Your task to perform on an android device: install app "Flipkart Online Shopping App" Image 0: 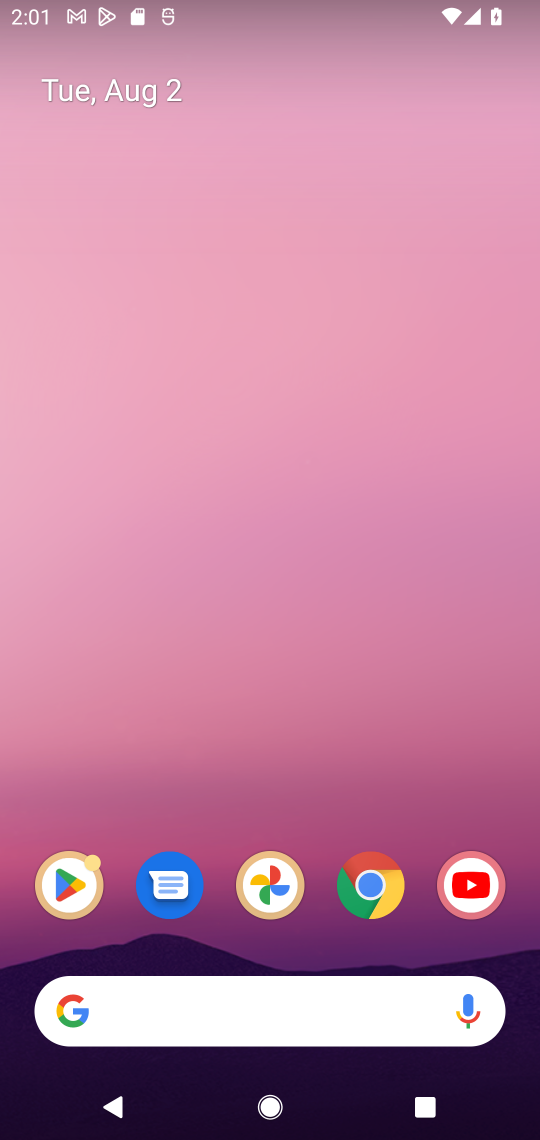
Step 0: click (58, 893)
Your task to perform on an android device: install app "Flipkart Online Shopping App" Image 1: 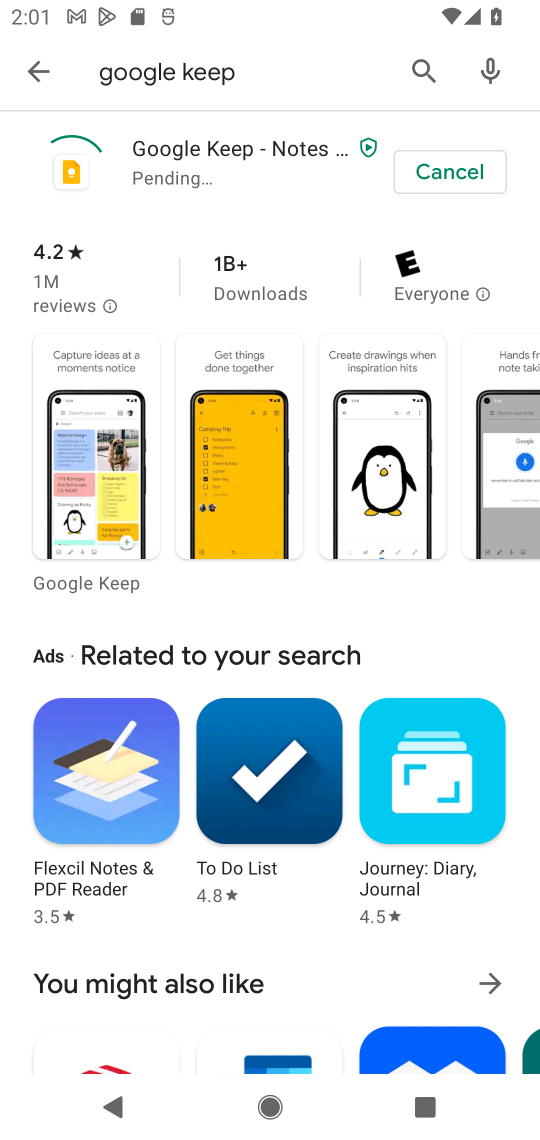
Step 1: click (409, 85)
Your task to perform on an android device: install app "Flipkart Online Shopping App" Image 2: 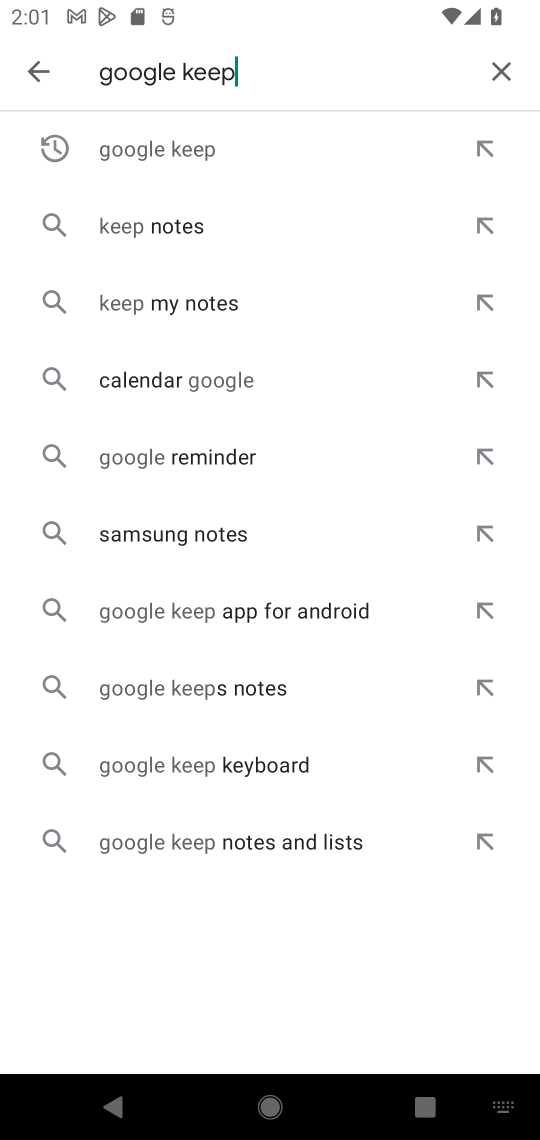
Step 2: click (494, 85)
Your task to perform on an android device: install app "Flipkart Online Shopping App" Image 3: 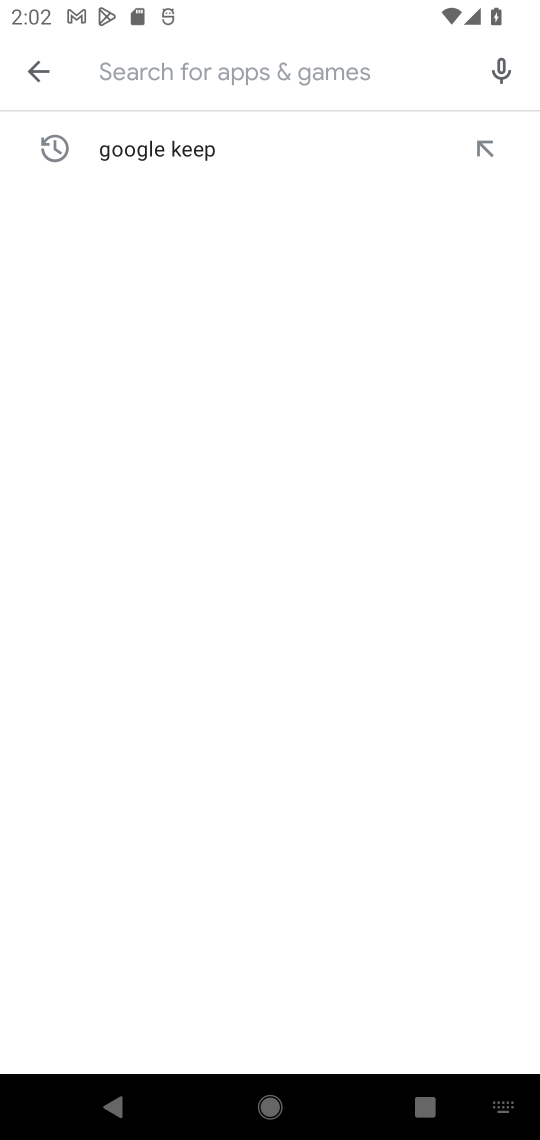
Step 3: type "flipkart"
Your task to perform on an android device: install app "Flipkart Online Shopping App" Image 4: 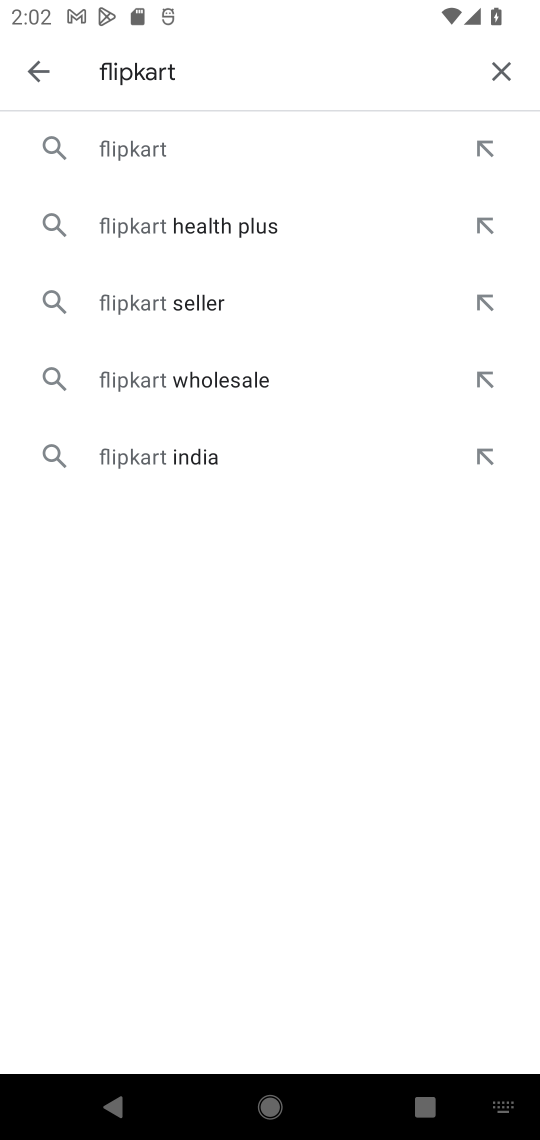
Step 4: click (237, 171)
Your task to perform on an android device: install app "Flipkart Online Shopping App" Image 5: 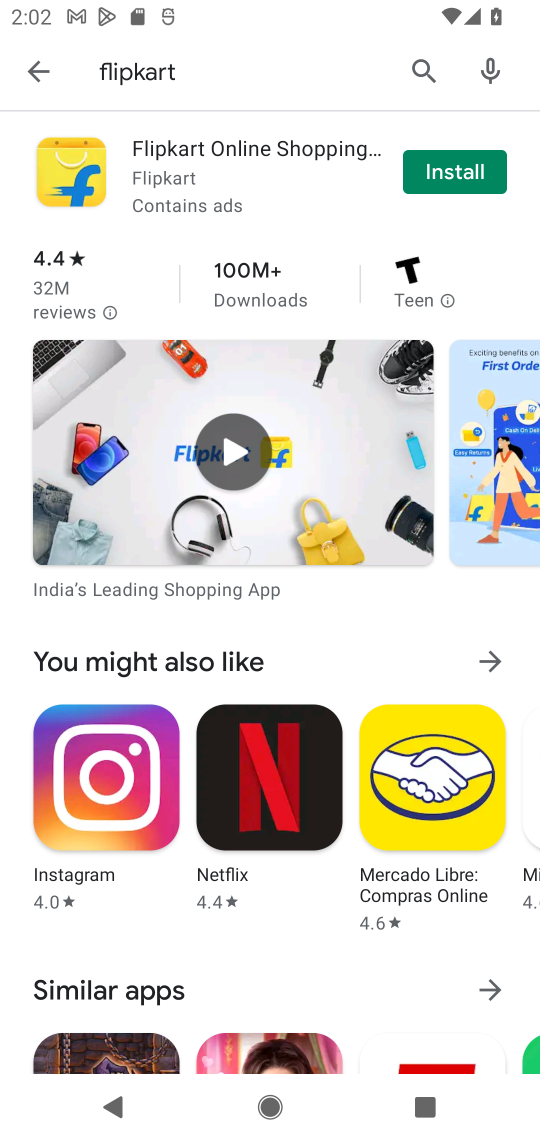
Step 5: click (457, 176)
Your task to perform on an android device: install app "Flipkart Online Shopping App" Image 6: 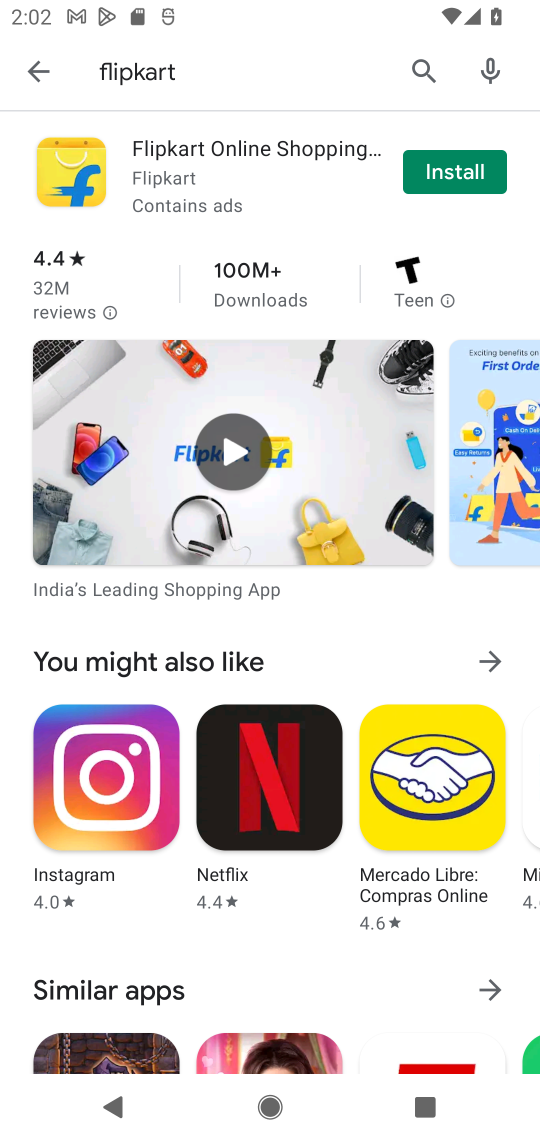
Step 6: click (430, 184)
Your task to perform on an android device: install app "Flipkart Online Shopping App" Image 7: 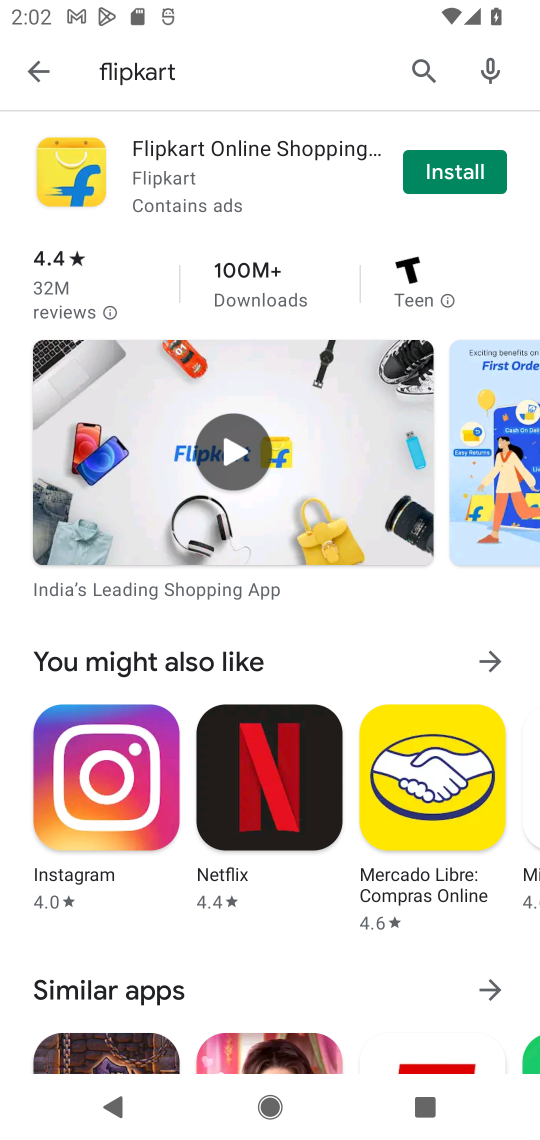
Step 7: click (435, 157)
Your task to perform on an android device: install app "Flipkart Online Shopping App" Image 8: 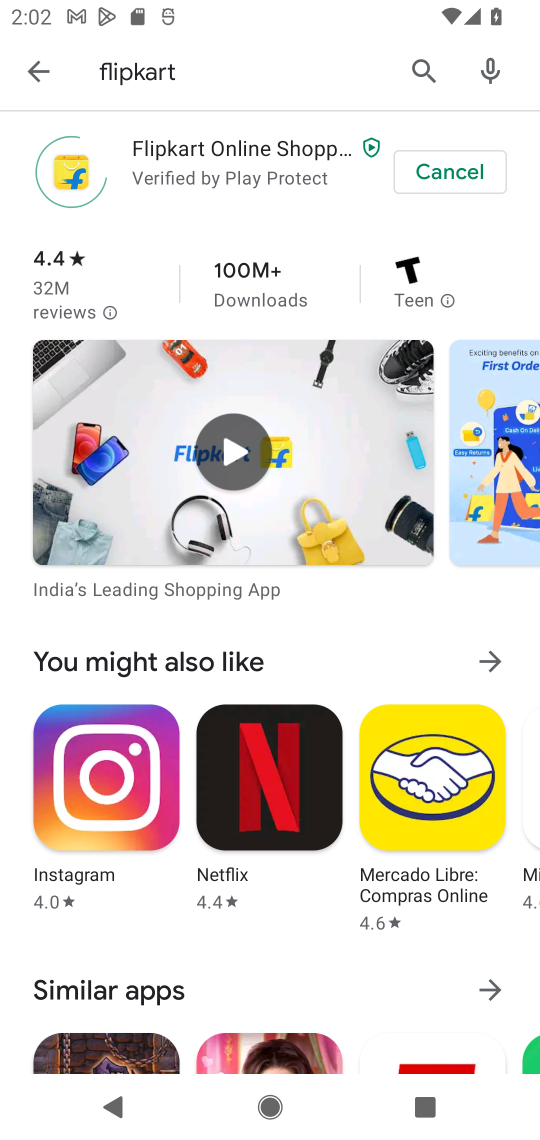
Step 8: task complete